Your task to perform on an android device: add a contact Image 0: 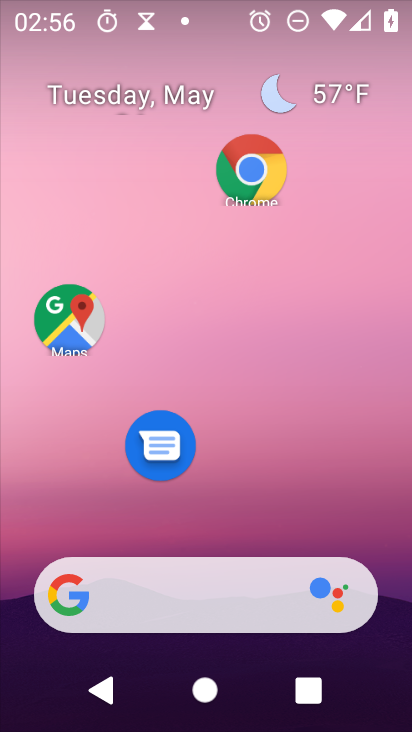
Step 0: drag from (253, 724) to (251, 175)
Your task to perform on an android device: add a contact Image 1: 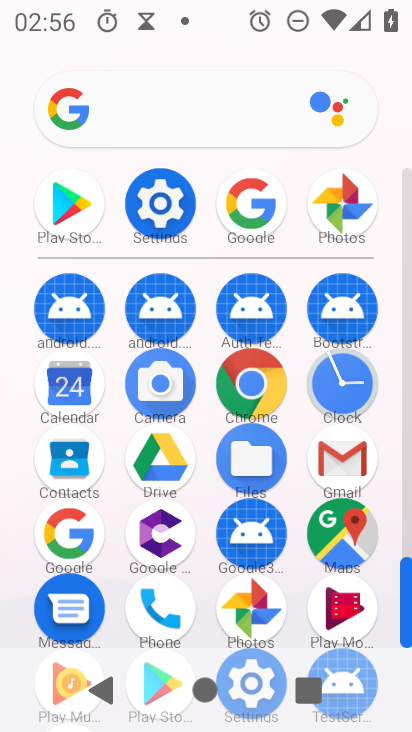
Step 1: click (81, 450)
Your task to perform on an android device: add a contact Image 2: 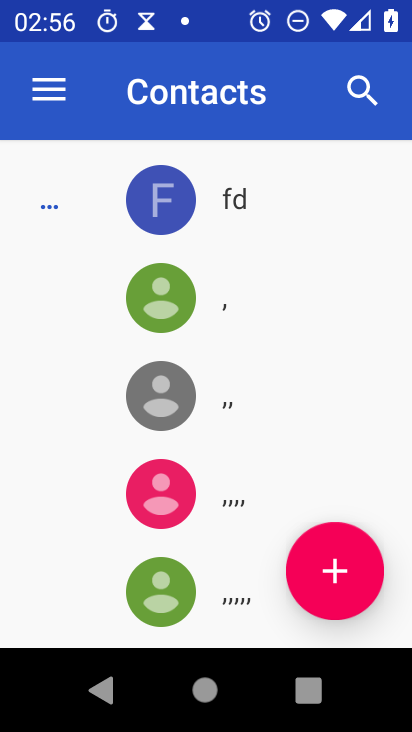
Step 2: click (337, 565)
Your task to perform on an android device: add a contact Image 3: 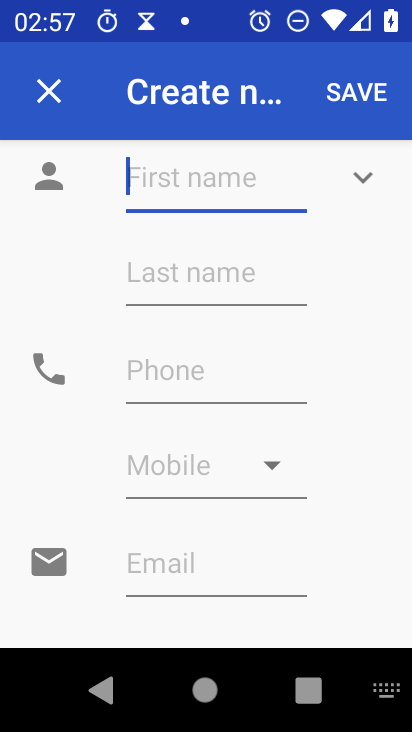
Step 3: type "nnnnn"
Your task to perform on an android device: add a contact Image 4: 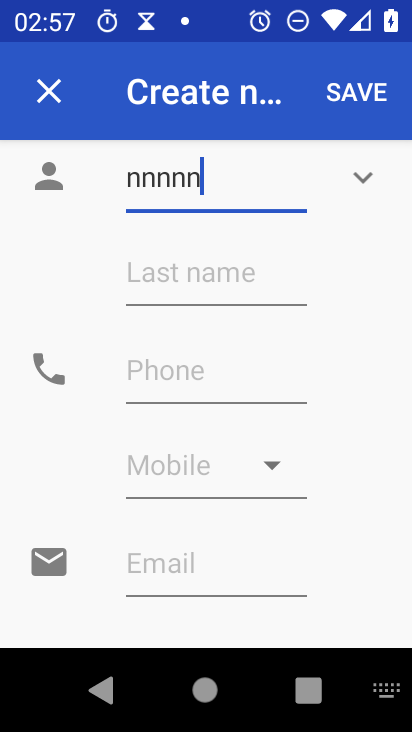
Step 4: click (170, 370)
Your task to perform on an android device: add a contact Image 5: 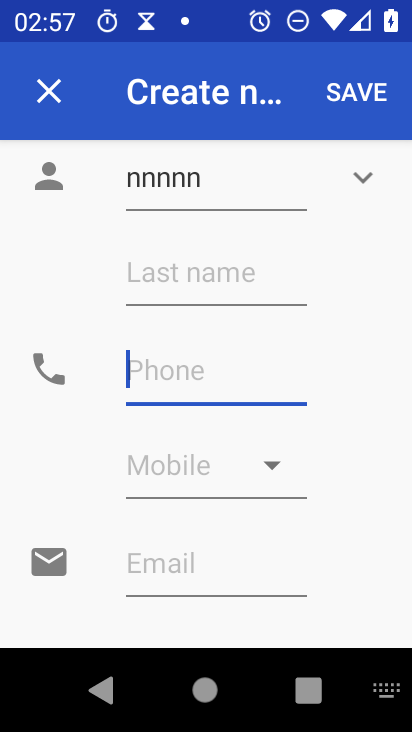
Step 5: type "8888"
Your task to perform on an android device: add a contact Image 6: 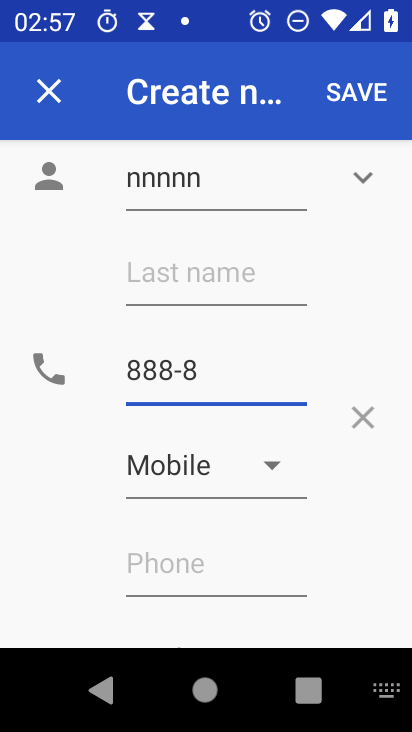
Step 6: click (357, 92)
Your task to perform on an android device: add a contact Image 7: 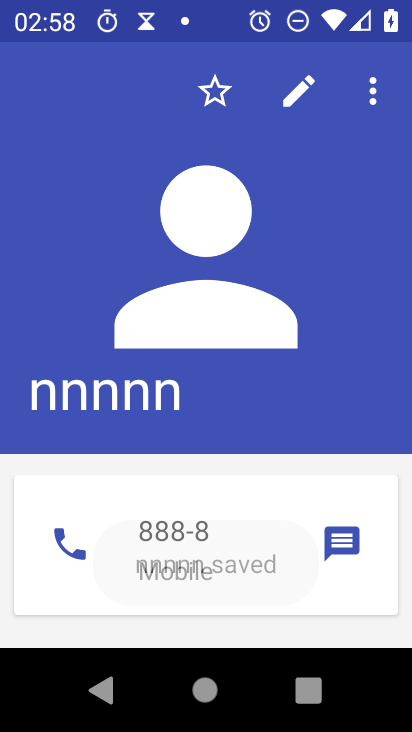
Step 7: task complete